Your task to perform on an android device: open chrome and create a bookmark for the current page Image 0: 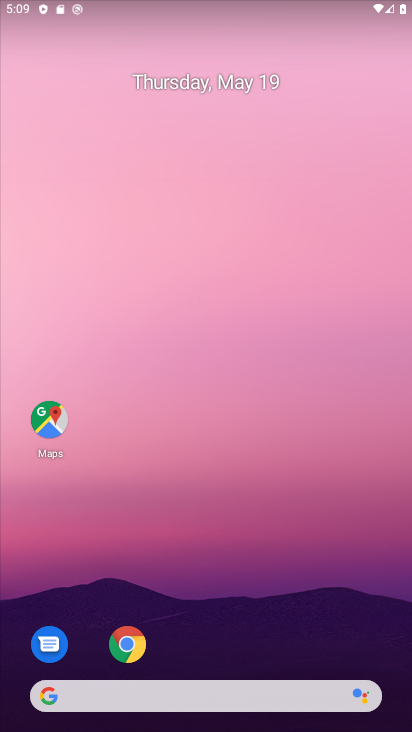
Step 0: click (320, 120)
Your task to perform on an android device: open chrome and create a bookmark for the current page Image 1: 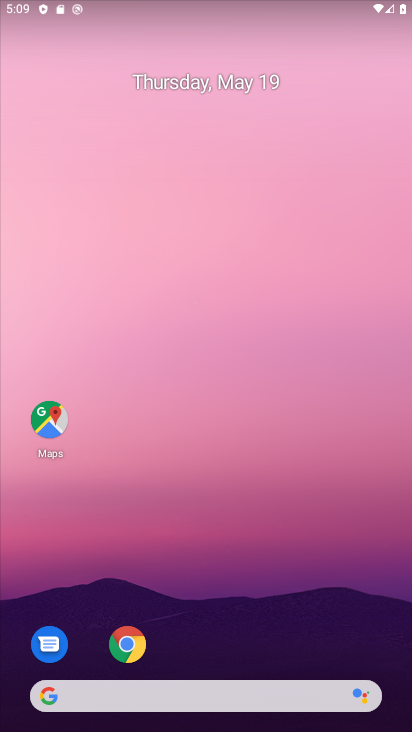
Step 1: click (130, 644)
Your task to perform on an android device: open chrome and create a bookmark for the current page Image 2: 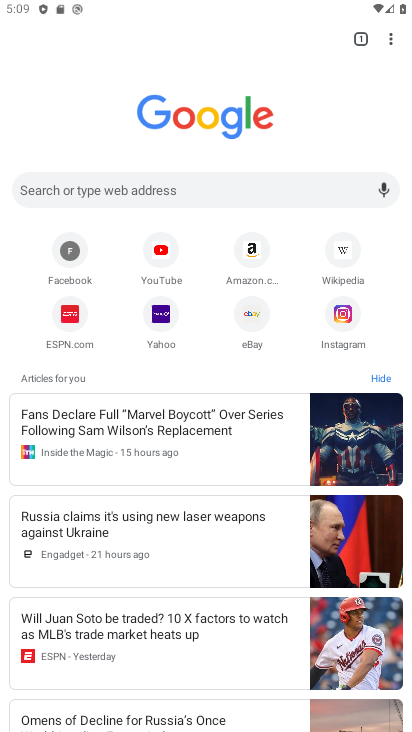
Step 2: task complete